Your task to perform on an android device: Open Android settings Image 0: 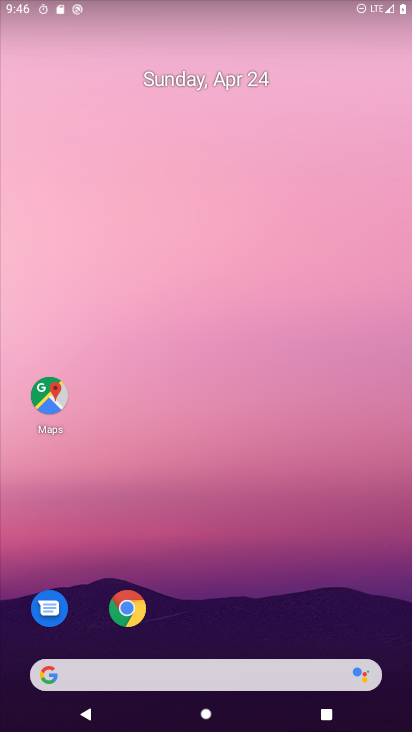
Step 0: drag from (276, 554) to (209, 45)
Your task to perform on an android device: Open Android settings Image 1: 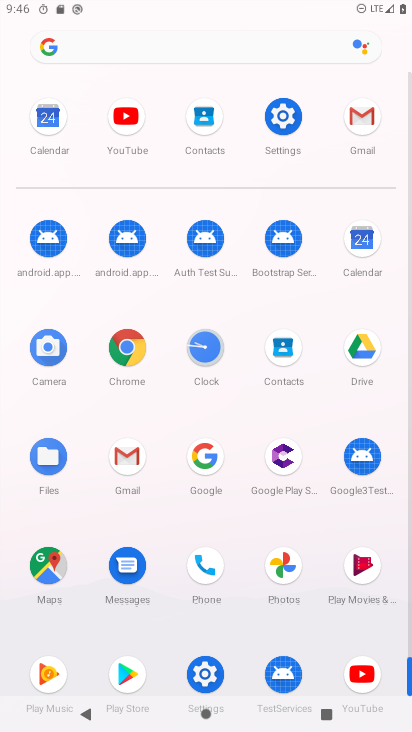
Step 1: click (280, 114)
Your task to perform on an android device: Open Android settings Image 2: 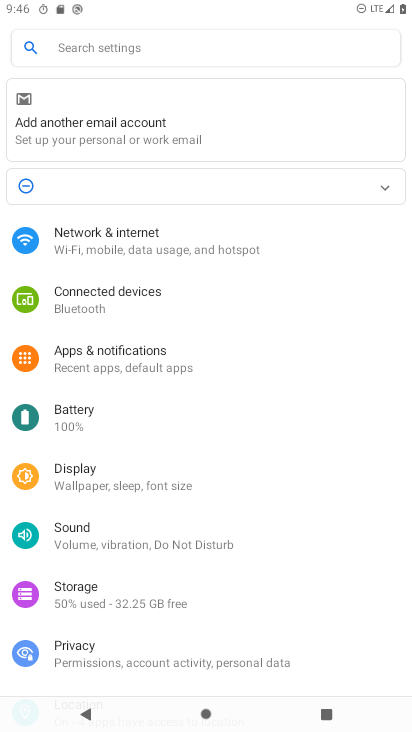
Step 2: task complete